Your task to perform on an android device: Search for pizza restaurants on Maps Image 0: 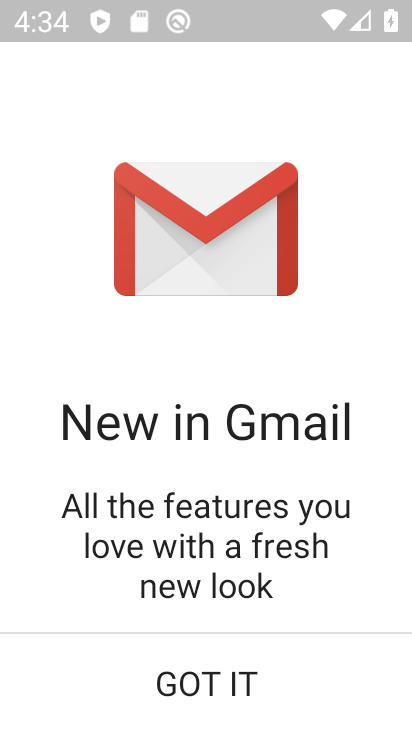
Step 0: press home button
Your task to perform on an android device: Search for pizza restaurants on Maps Image 1: 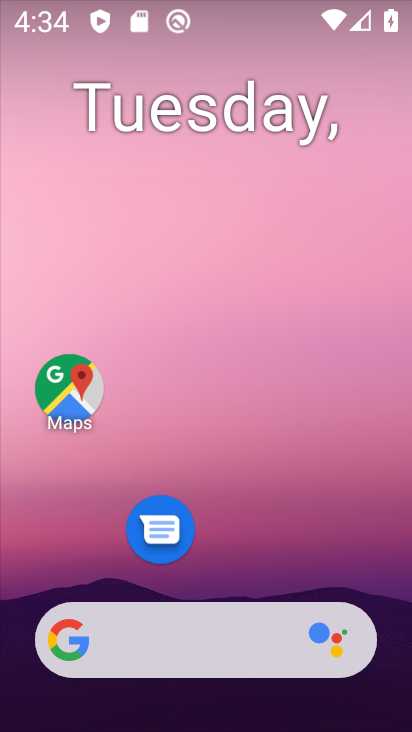
Step 1: drag from (203, 583) to (203, 126)
Your task to perform on an android device: Search for pizza restaurants on Maps Image 2: 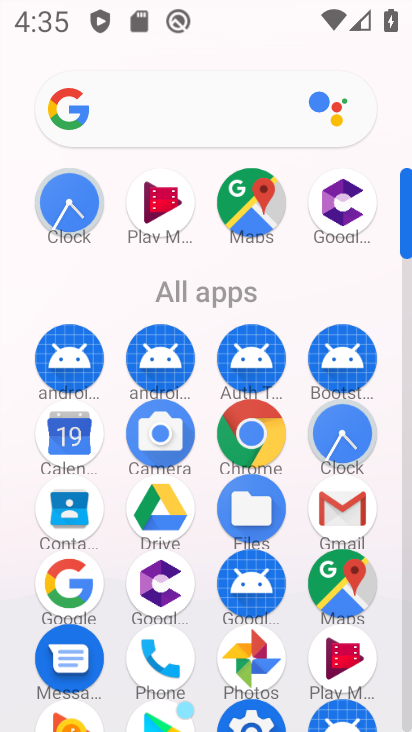
Step 2: drag from (212, 554) to (243, 256)
Your task to perform on an android device: Search for pizza restaurants on Maps Image 3: 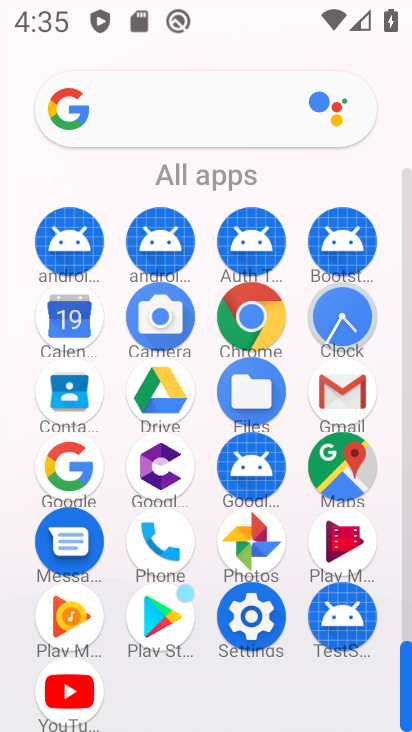
Step 3: click (342, 491)
Your task to perform on an android device: Search for pizza restaurants on Maps Image 4: 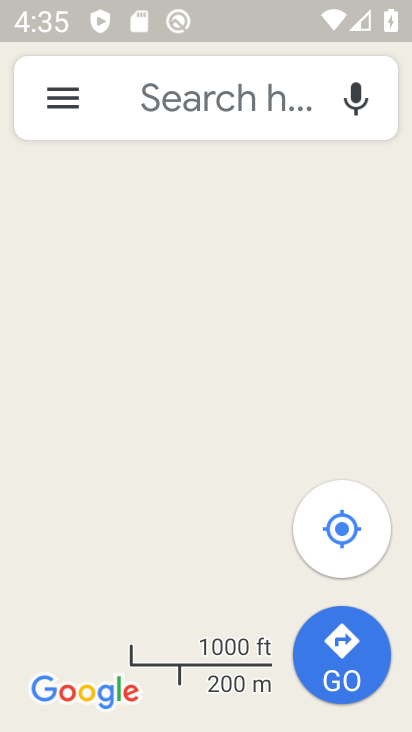
Step 4: click (188, 107)
Your task to perform on an android device: Search for pizza restaurants on Maps Image 5: 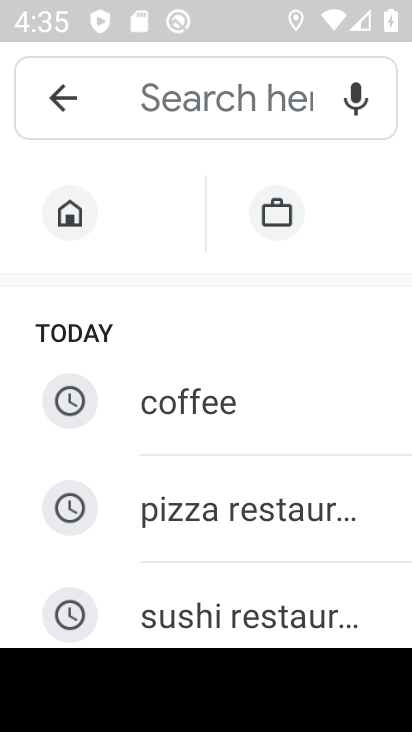
Step 5: type "pizza restaurants"
Your task to perform on an android device: Search for pizza restaurants on Maps Image 6: 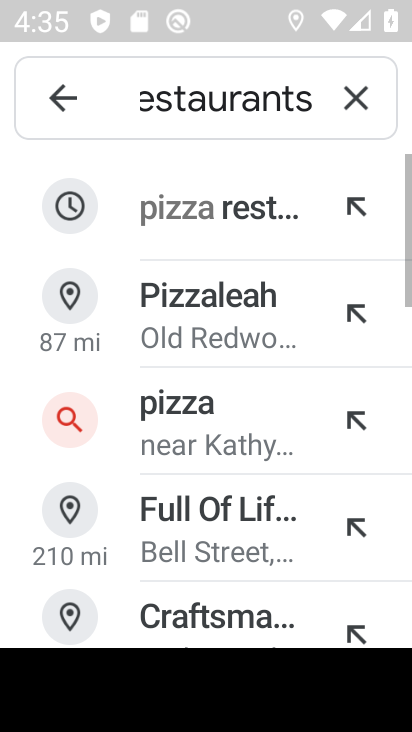
Step 6: click (232, 203)
Your task to perform on an android device: Search for pizza restaurants on Maps Image 7: 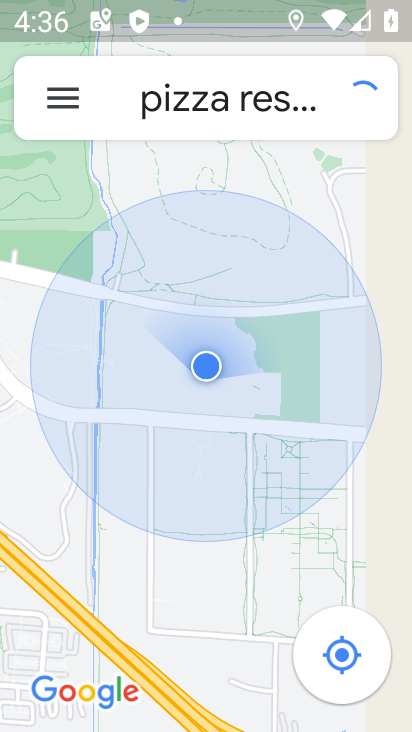
Step 7: task complete